Your task to perform on an android device: turn vacation reply on in the gmail app Image 0: 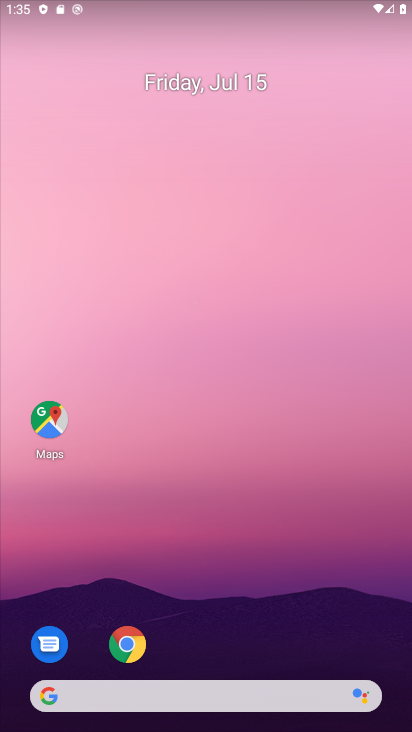
Step 0: drag from (360, 626) to (210, 127)
Your task to perform on an android device: turn vacation reply on in the gmail app Image 1: 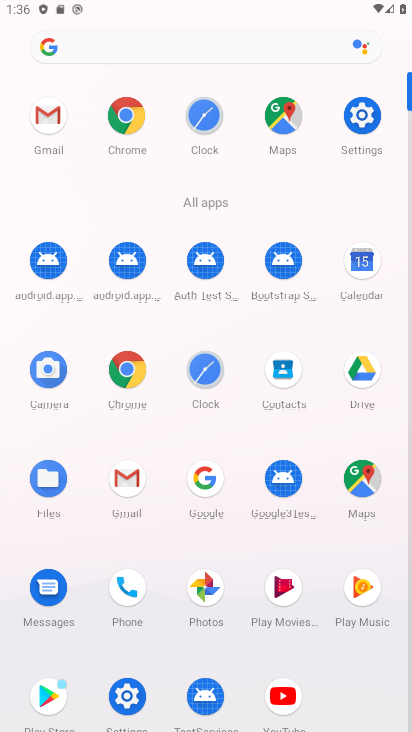
Step 1: click (131, 470)
Your task to perform on an android device: turn vacation reply on in the gmail app Image 2: 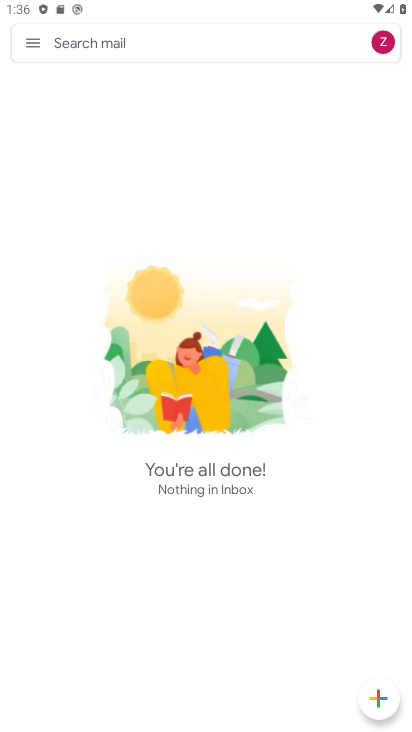
Step 2: click (41, 50)
Your task to perform on an android device: turn vacation reply on in the gmail app Image 3: 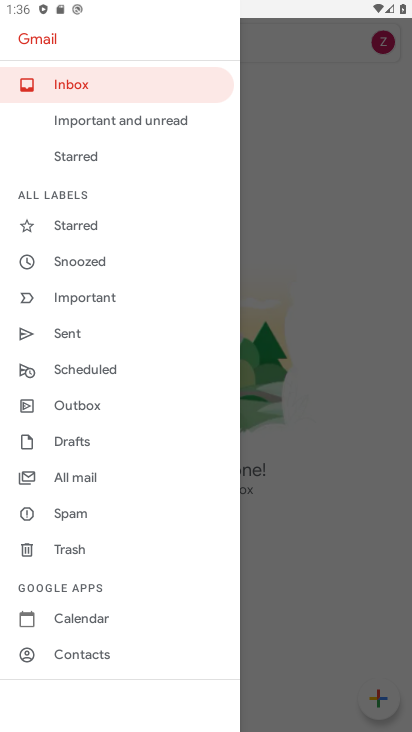
Step 3: drag from (118, 665) to (187, 22)
Your task to perform on an android device: turn vacation reply on in the gmail app Image 4: 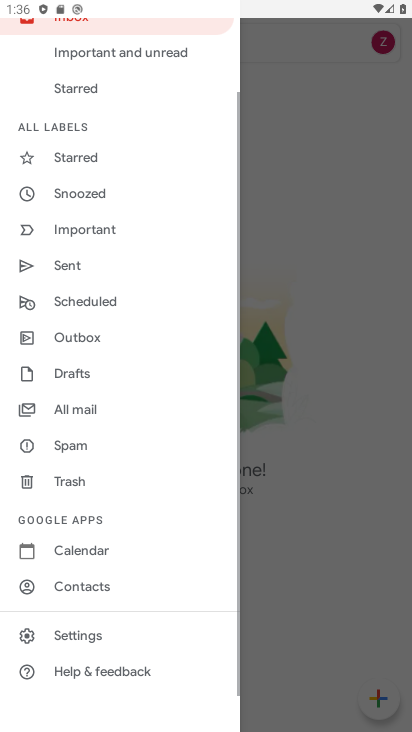
Step 4: click (124, 641)
Your task to perform on an android device: turn vacation reply on in the gmail app Image 5: 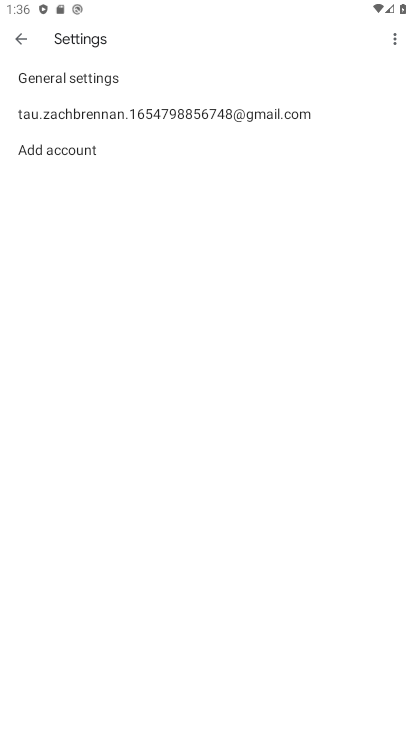
Step 5: click (115, 114)
Your task to perform on an android device: turn vacation reply on in the gmail app Image 6: 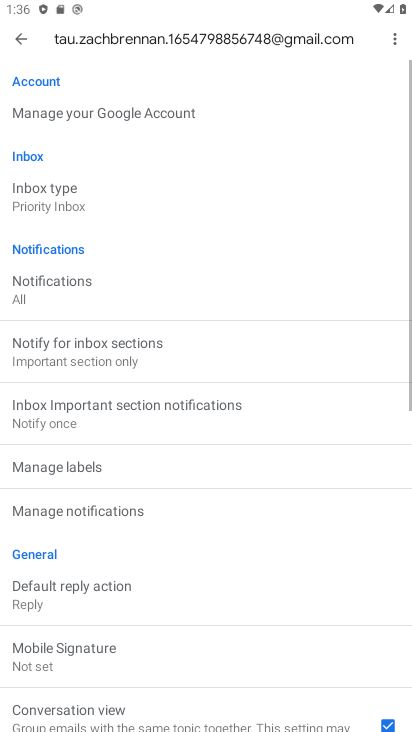
Step 6: drag from (174, 691) to (217, 30)
Your task to perform on an android device: turn vacation reply on in the gmail app Image 7: 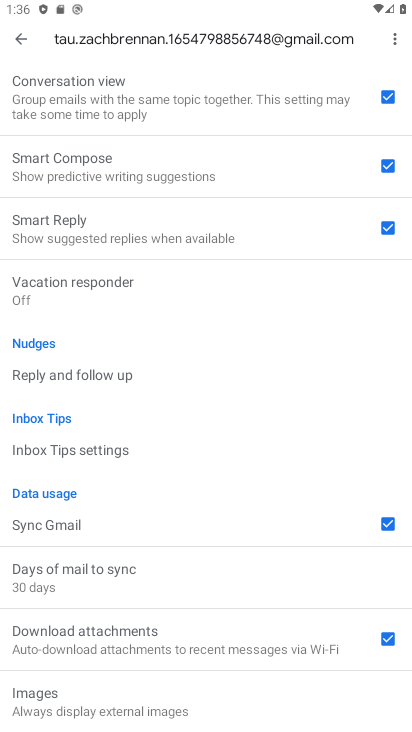
Step 7: click (125, 289)
Your task to perform on an android device: turn vacation reply on in the gmail app Image 8: 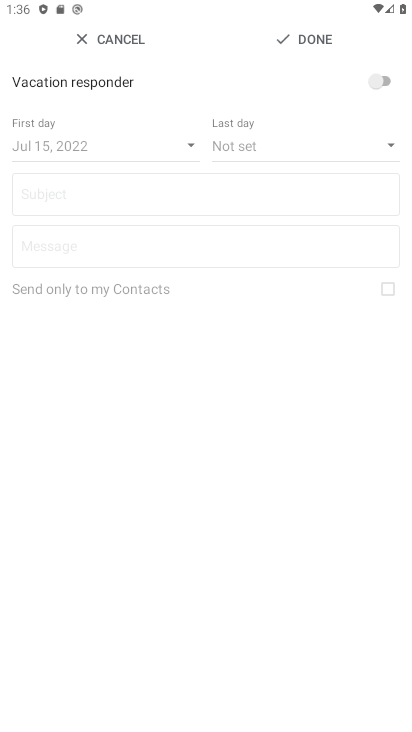
Step 8: click (368, 81)
Your task to perform on an android device: turn vacation reply on in the gmail app Image 9: 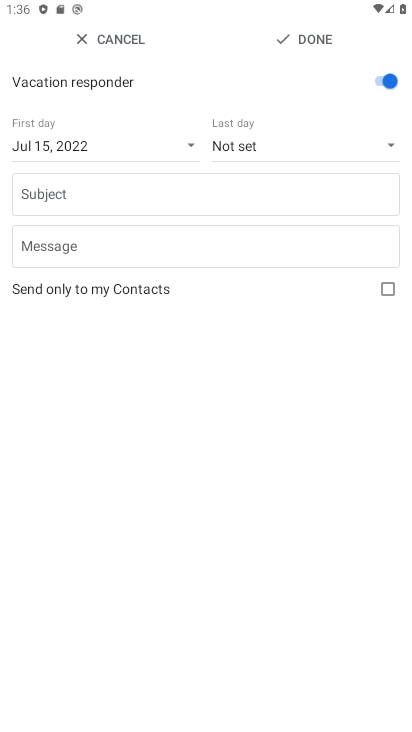
Step 9: task complete